Your task to perform on an android device: all mails in gmail Image 0: 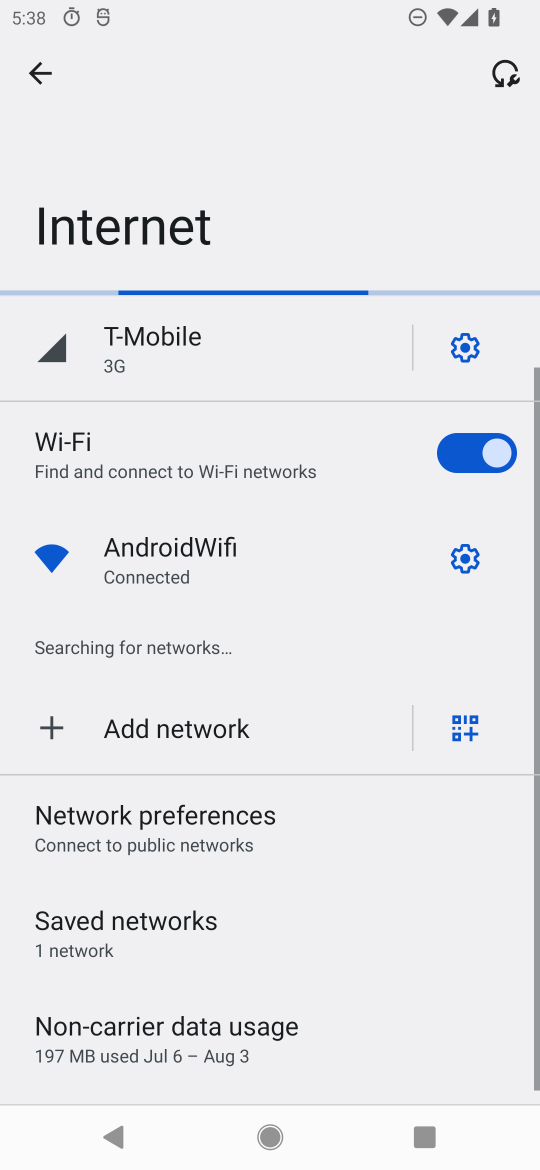
Step 0: press home button
Your task to perform on an android device: all mails in gmail Image 1: 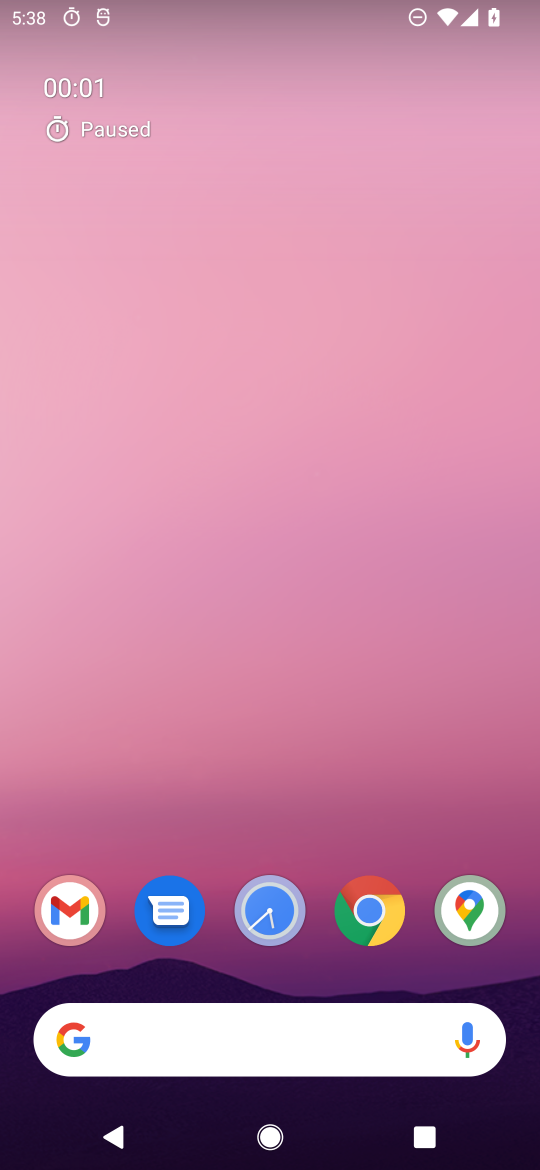
Step 1: click (76, 885)
Your task to perform on an android device: all mails in gmail Image 2: 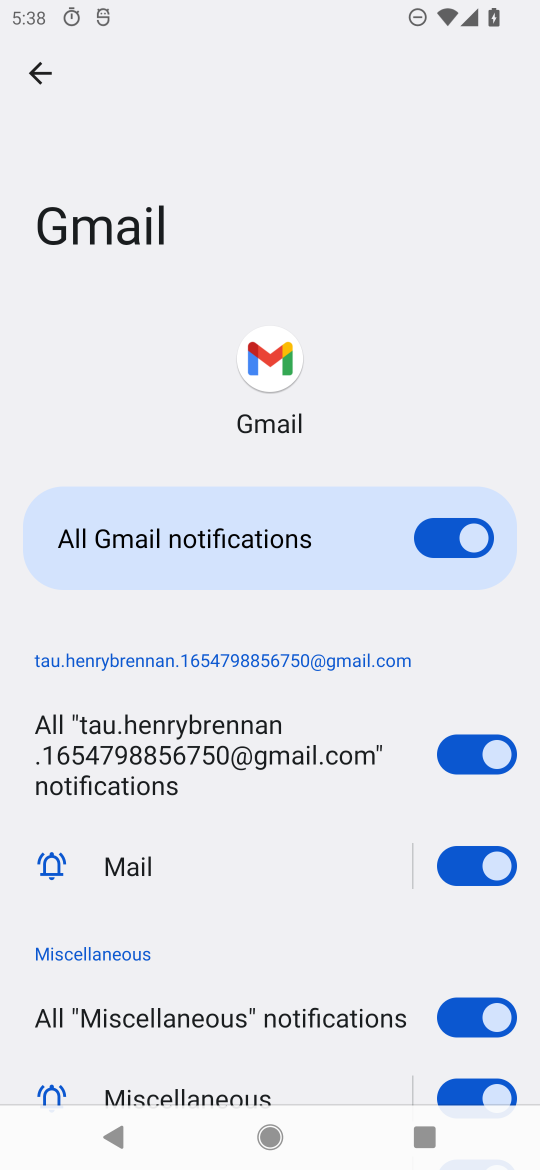
Step 2: click (44, 78)
Your task to perform on an android device: all mails in gmail Image 3: 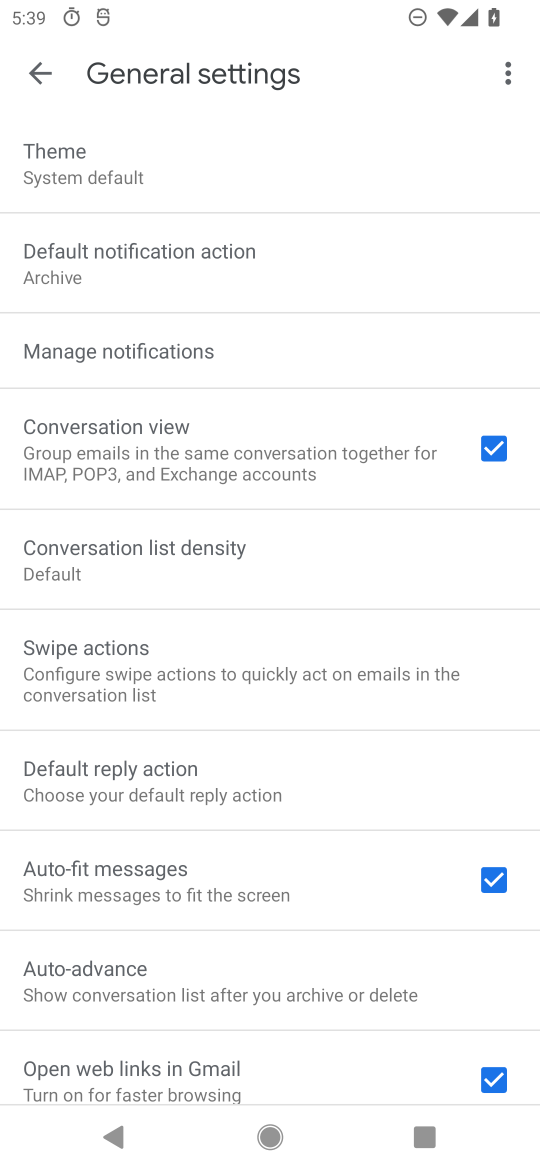
Step 3: click (39, 73)
Your task to perform on an android device: all mails in gmail Image 4: 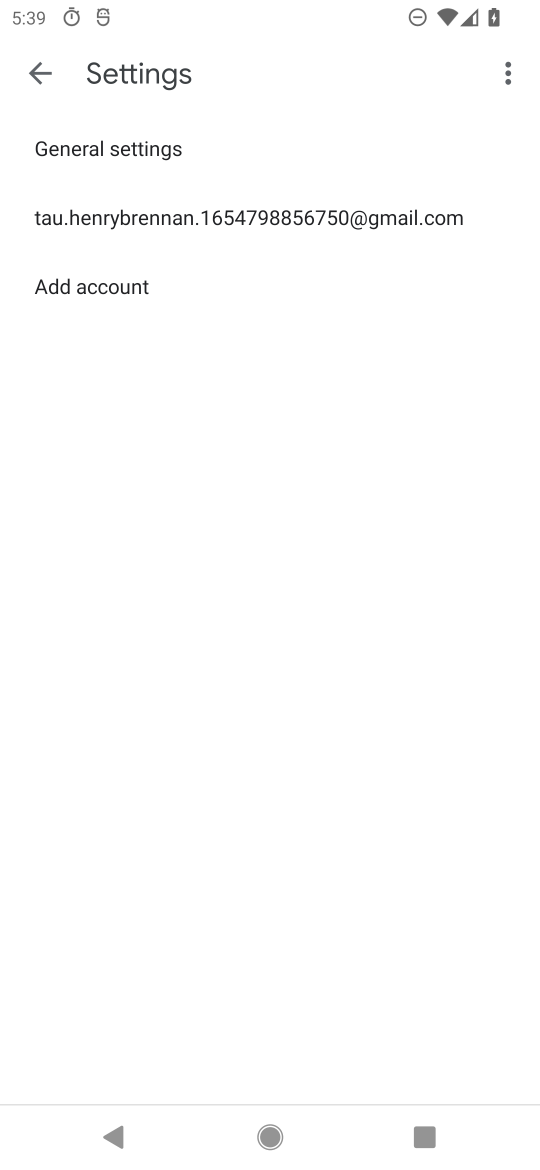
Step 4: click (34, 62)
Your task to perform on an android device: all mails in gmail Image 5: 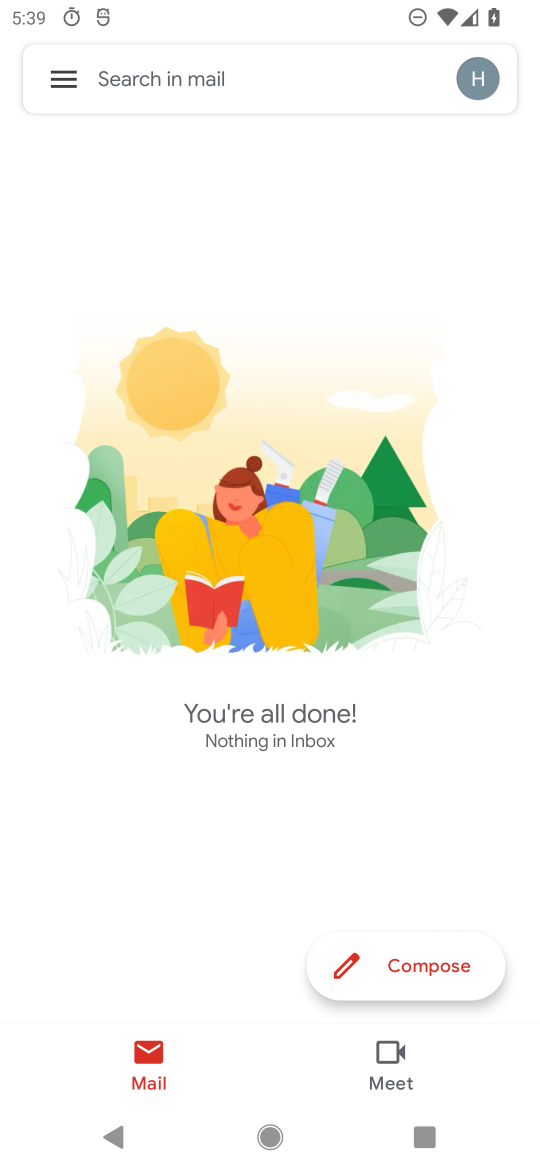
Step 5: click (79, 52)
Your task to perform on an android device: all mails in gmail Image 6: 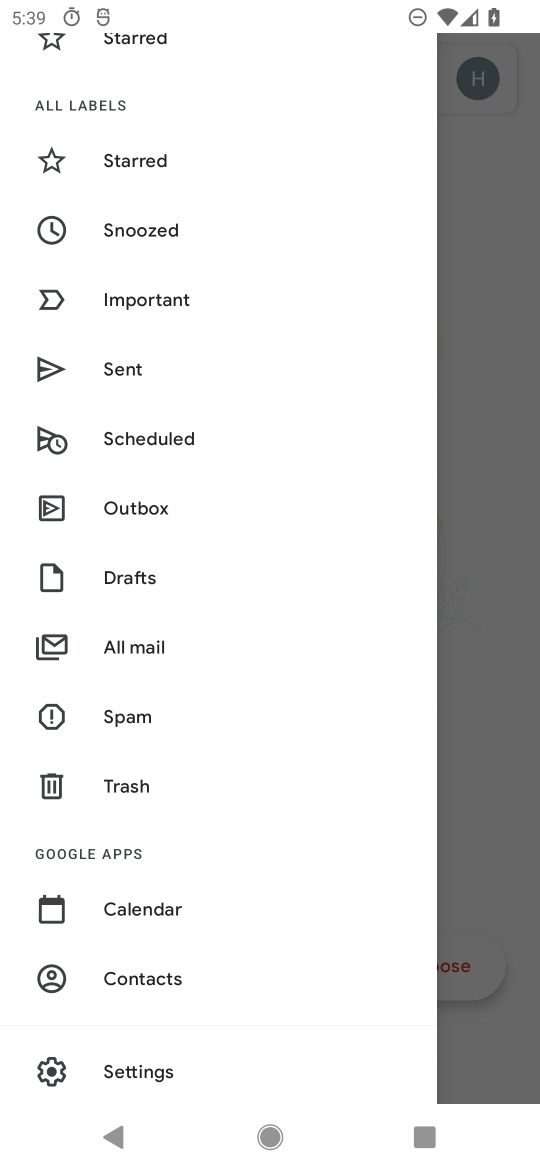
Step 6: drag from (250, 358) to (263, 705)
Your task to perform on an android device: all mails in gmail Image 7: 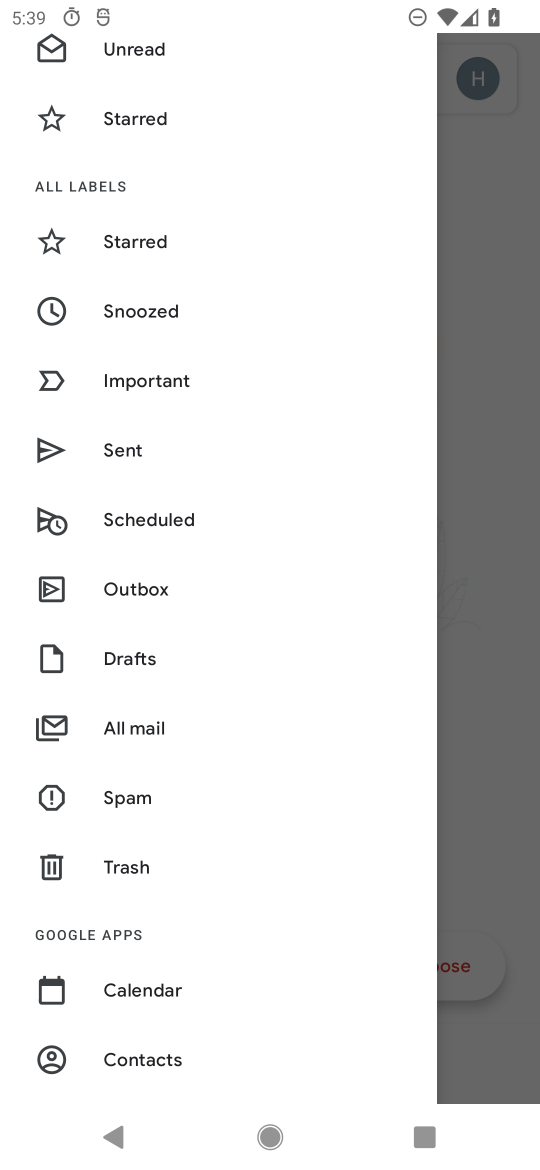
Step 7: click (248, 684)
Your task to perform on an android device: all mails in gmail Image 8: 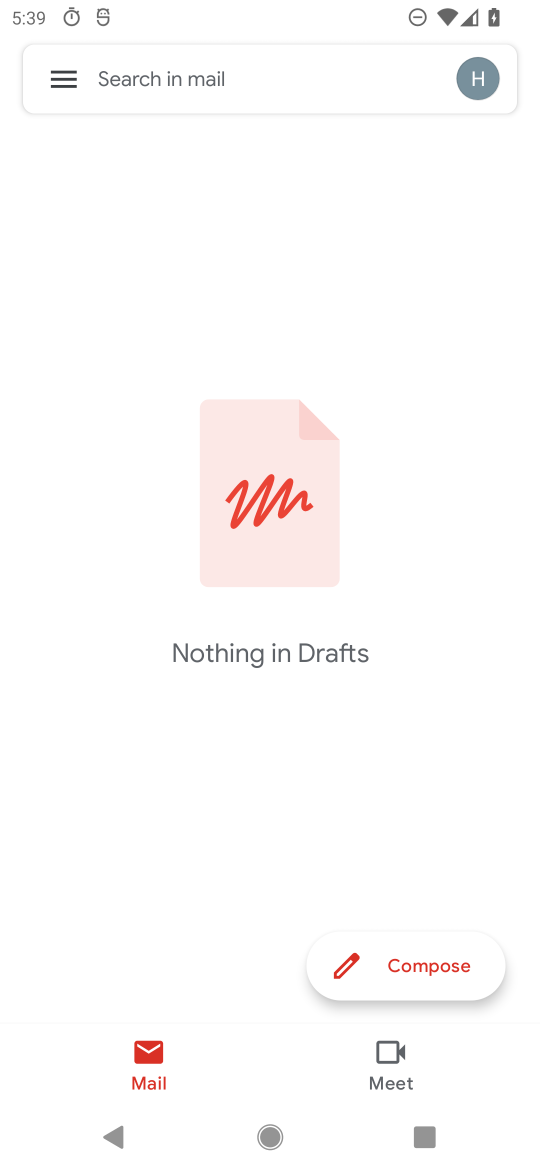
Step 8: click (50, 78)
Your task to perform on an android device: all mails in gmail Image 9: 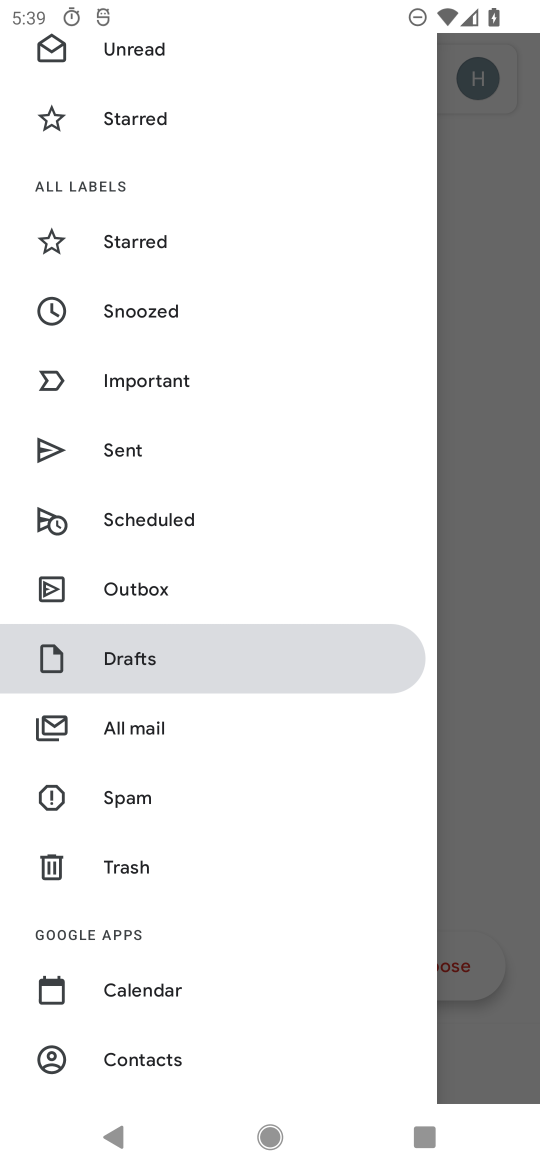
Step 9: drag from (265, 169) to (183, 693)
Your task to perform on an android device: all mails in gmail Image 10: 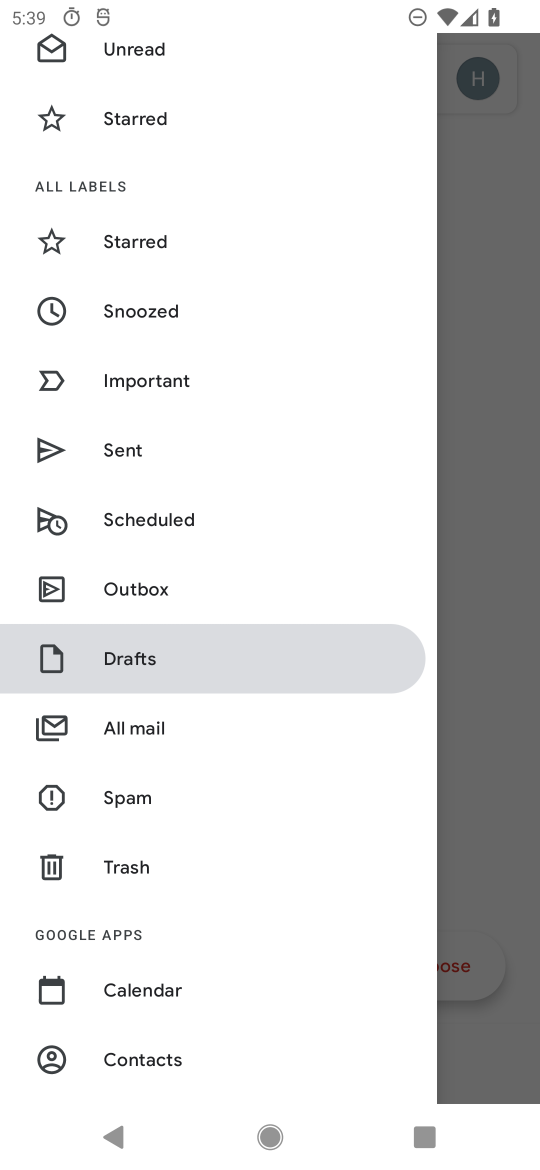
Step 10: drag from (194, 107) to (205, 413)
Your task to perform on an android device: all mails in gmail Image 11: 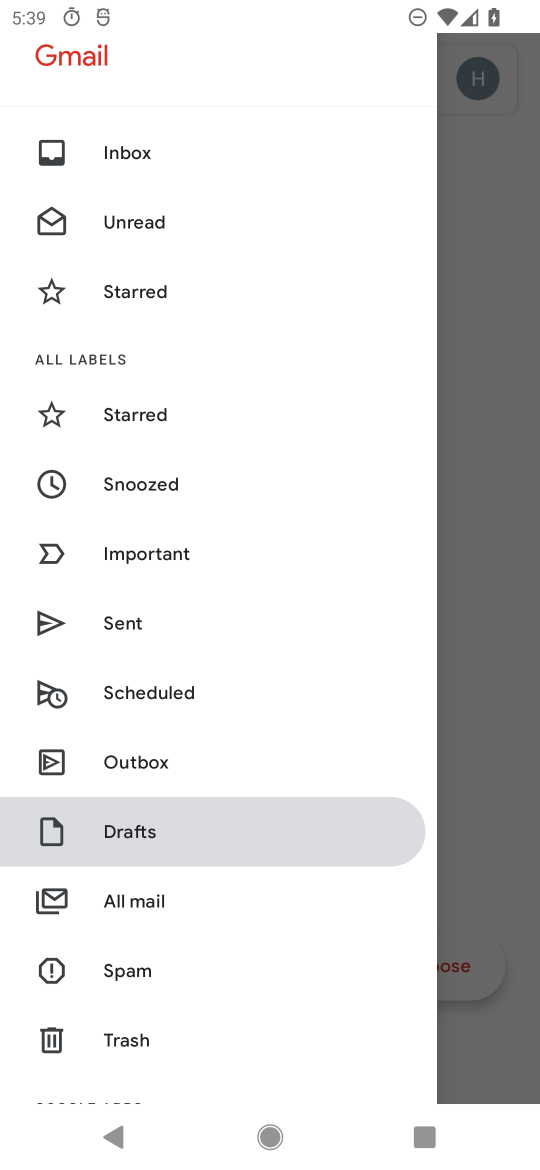
Step 11: click (131, 143)
Your task to perform on an android device: all mails in gmail Image 12: 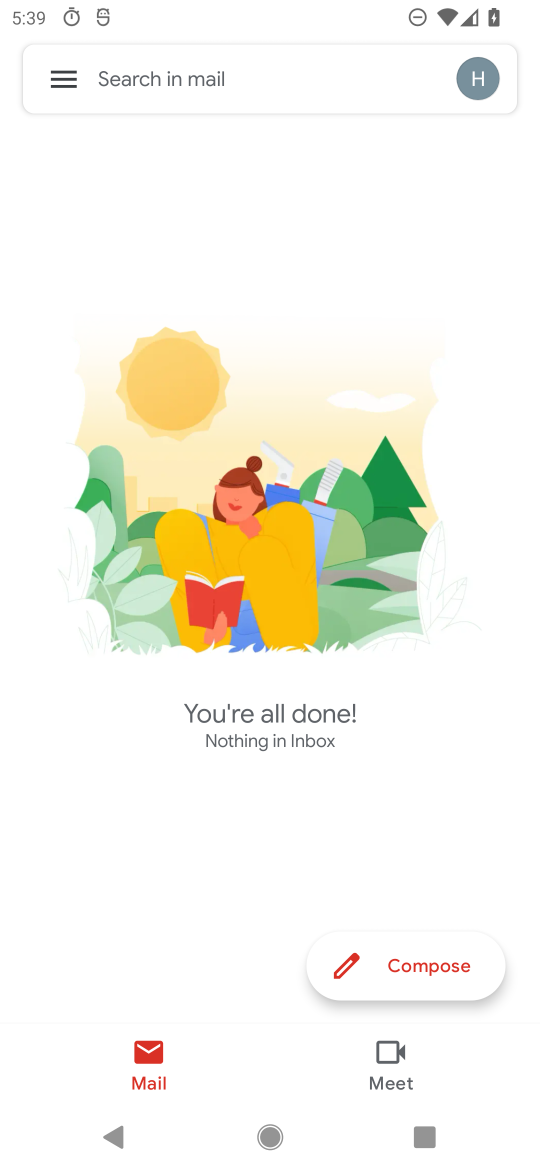
Step 12: task complete